Your task to perform on an android device: open device folders in google photos Image 0: 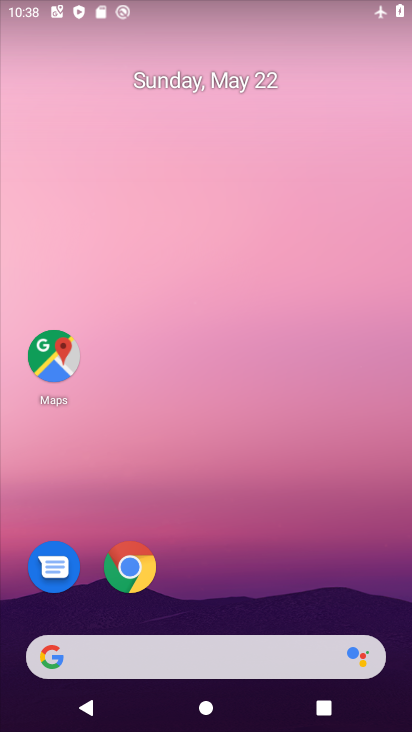
Step 0: drag from (363, 561) to (270, 30)
Your task to perform on an android device: open device folders in google photos Image 1: 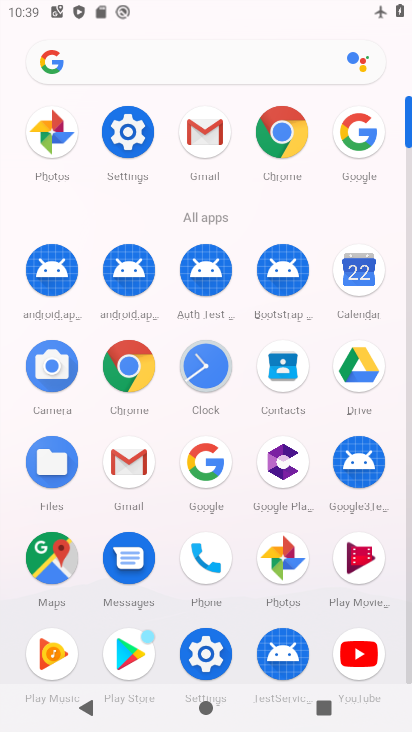
Step 1: click (288, 549)
Your task to perform on an android device: open device folders in google photos Image 2: 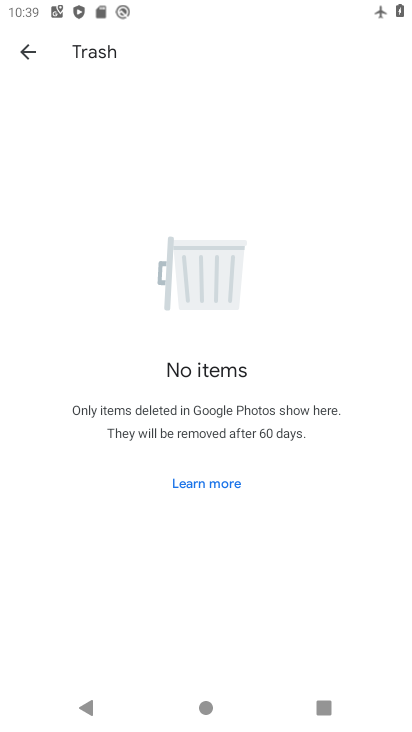
Step 2: click (22, 55)
Your task to perform on an android device: open device folders in google photos Image 3: 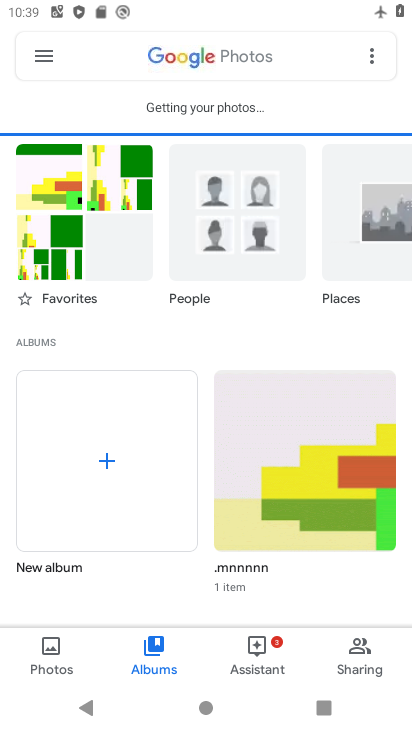
Step 3: click (26, 49)
Your task to perform on an android device: open device folders in google photos Image 4: 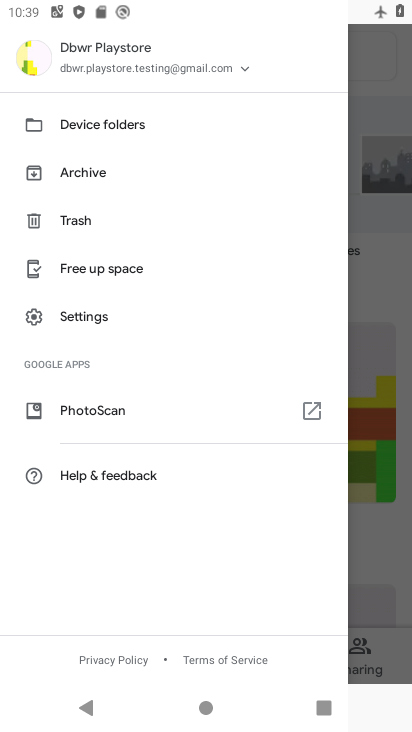
Step 4: click (123, 127)
Your task to perform on an android device: open device folders in google photos Image 5: 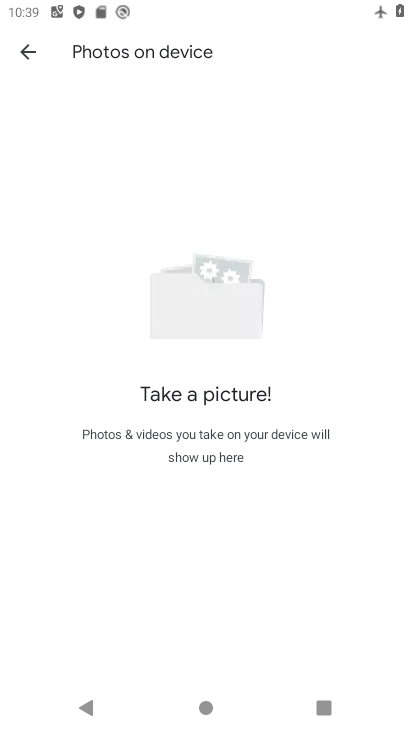
Step 5: task complete